Your task to perform on an android device: Is it going to rain today? Image 0: 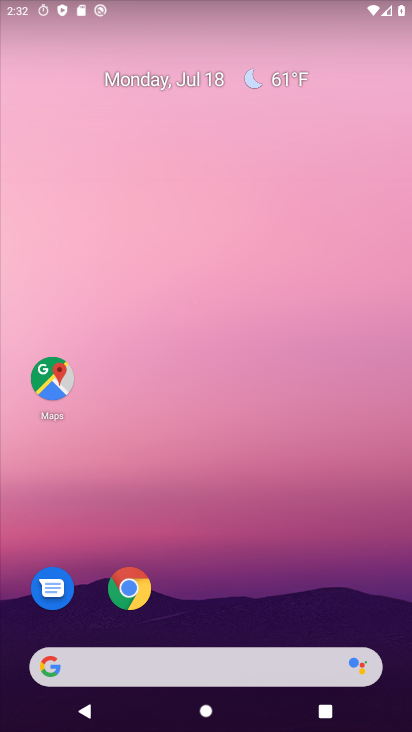
Step 0: drag from (248, 530) to (174, 0)
Your task to perform on an android device: Is it going to rain today? Image 1: 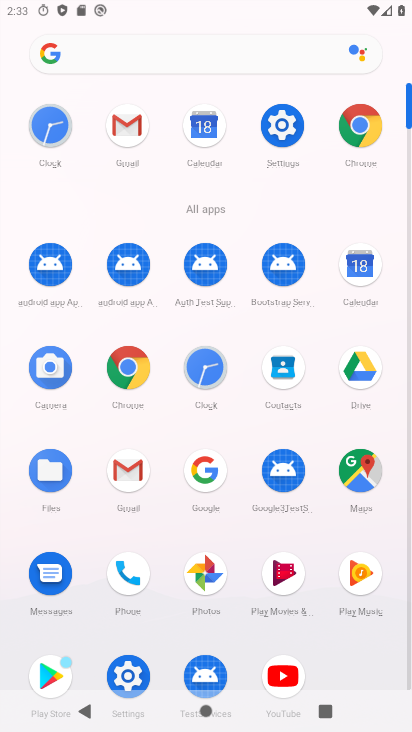
Step 1: click (196, 492)
Your task to perform on an android device: Is it going to rain today? Image 2: 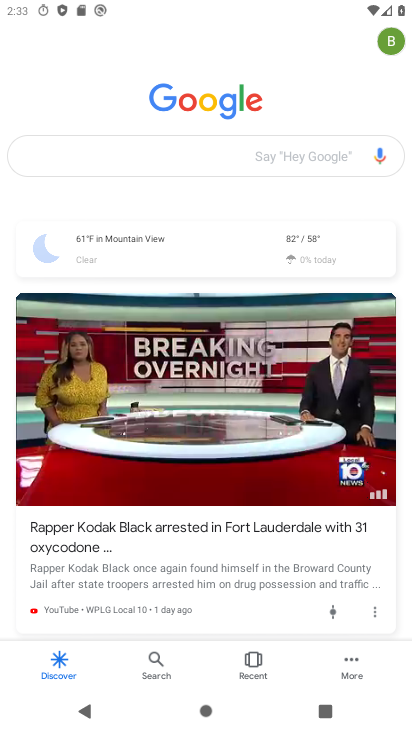
Step 2: click (185, 220)
Your task to perform on an android device: Is it going to rain today? Image 3: 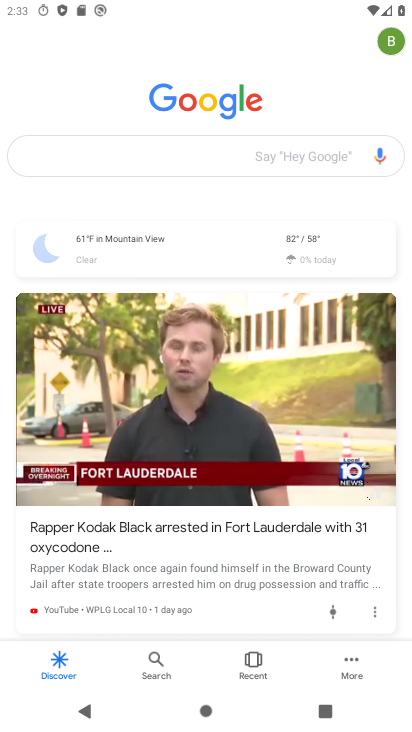
Step 3: task complete